Your task to perform on an android device: Show the shopping cart on ebay. Add "asus zenbook" to the cart on ebay Image 0: 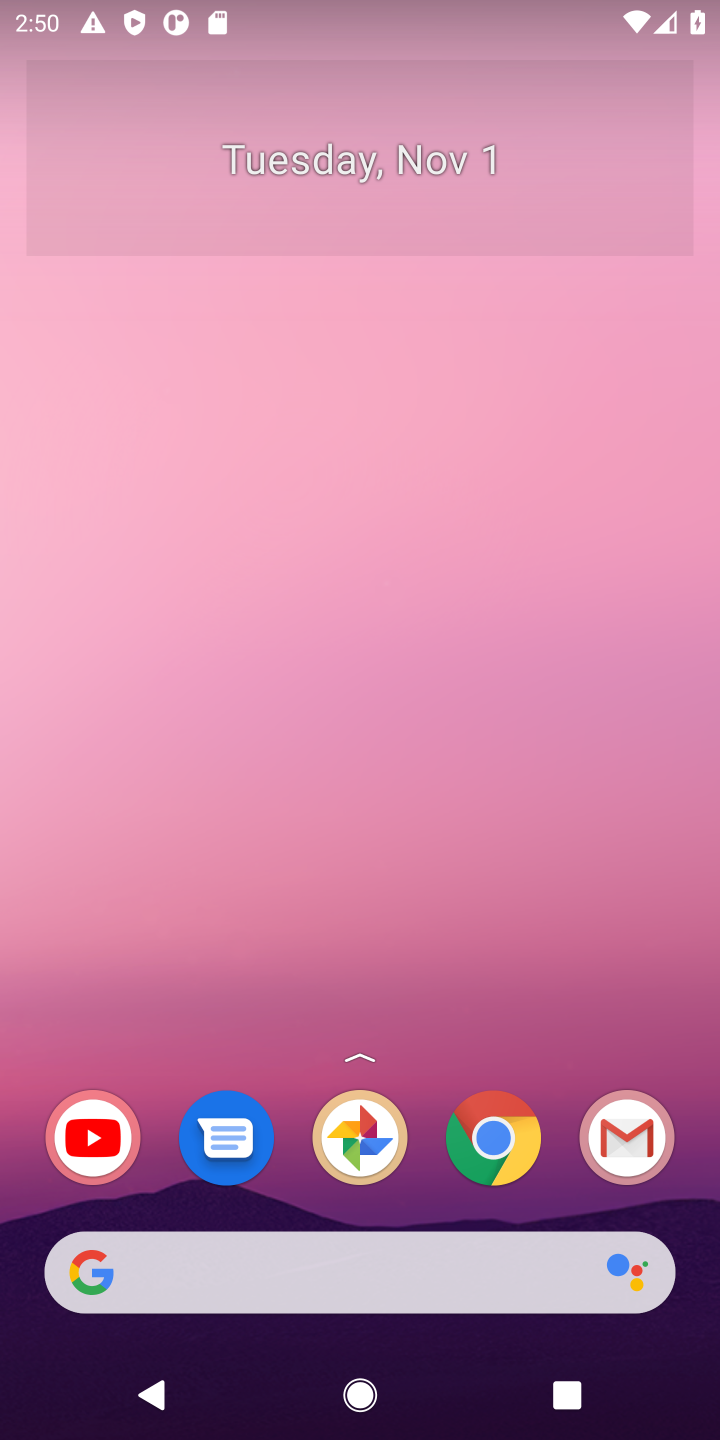
Step 0: click (483, 1145)
Your task to perform on an android device: Show the shopping cart on ebay. Add "asus zenbook" to the cart on ebay Image 1: 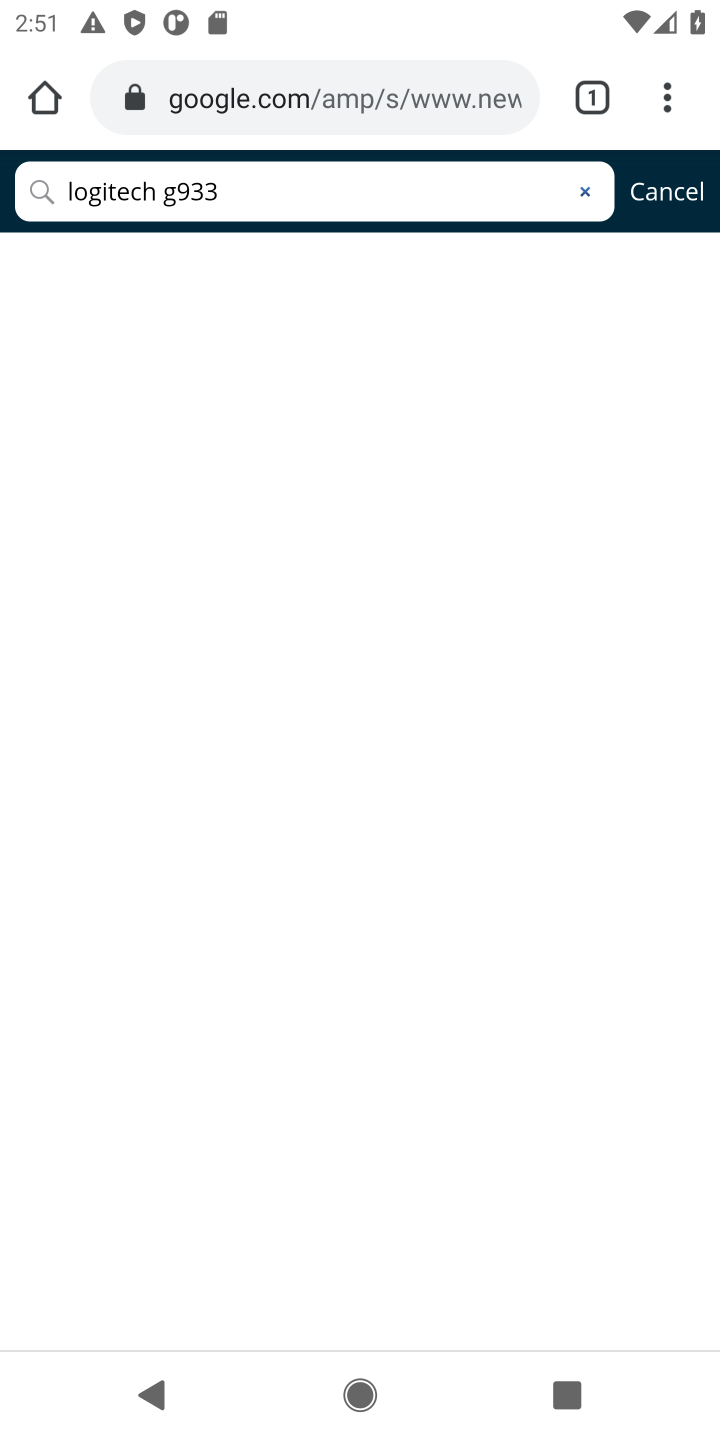
Step 1: click (264, 96)
Your task to perform on an android device: Show the shopping cart on ebay. Add "asus zenbook" to the cart on ebay Image 2: 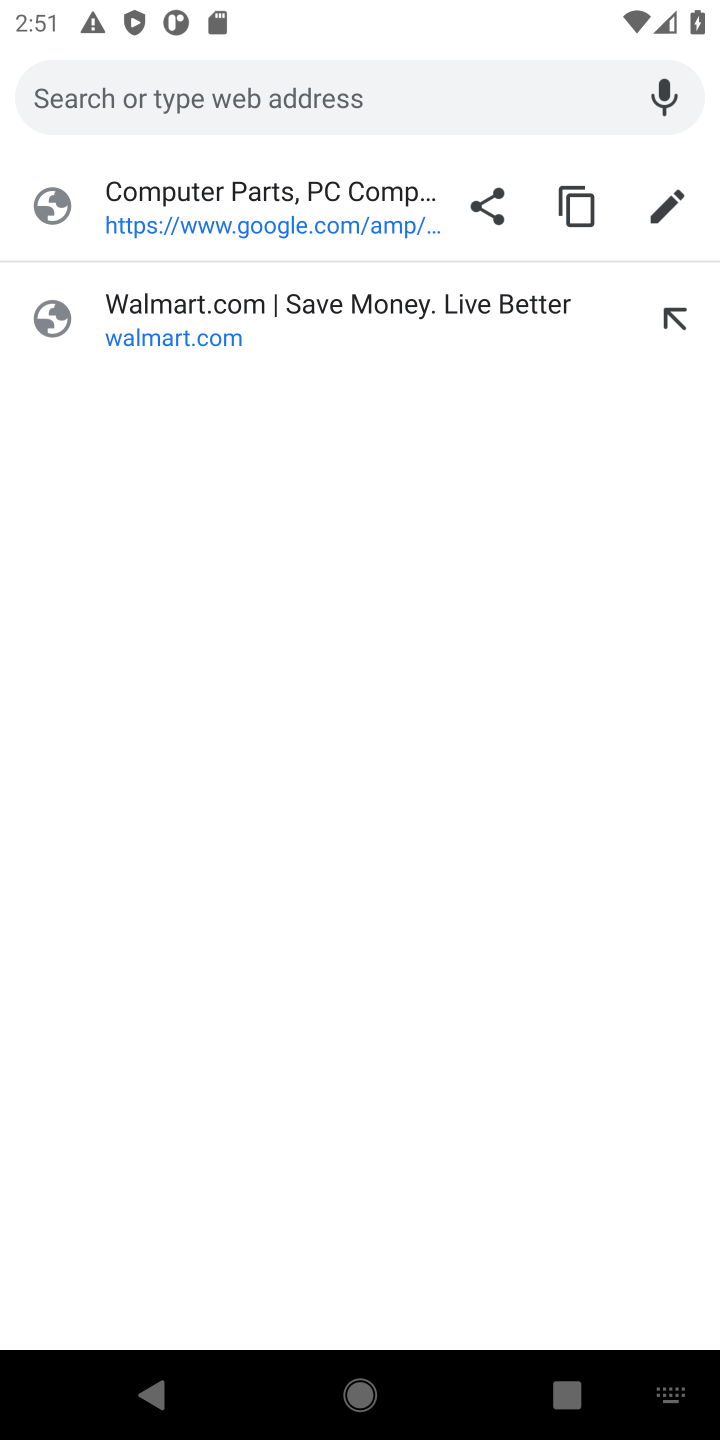
Step 2: type "ebay"
Your task to perform on an android device: Show the shopping cart on ebay. Add "asus zenbook" to the cart on ebay Image 3: 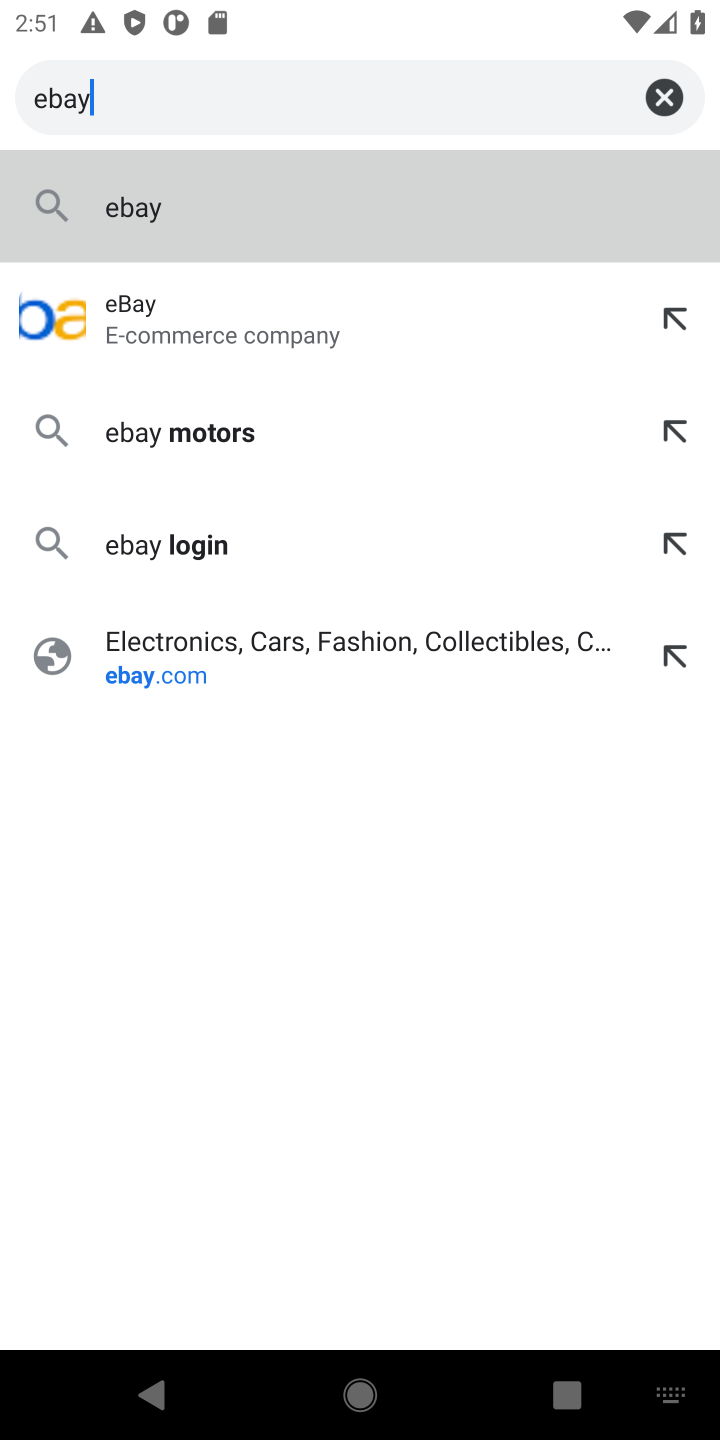
Step 3: click (215, 209)
Your task to perform on an android device: Show the shopping cart on ebay. Add "asus zenbook" to the cart on ebay Image 4: 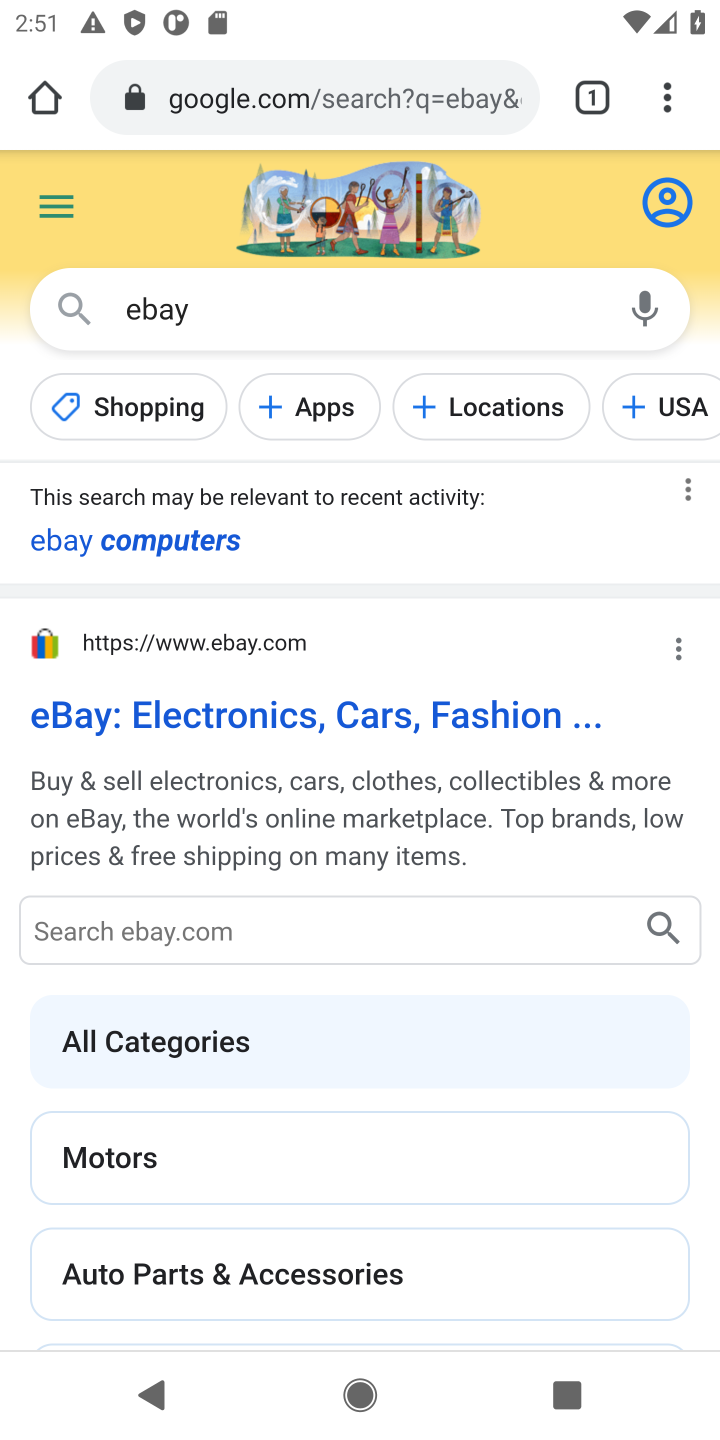
Step 4: click (126, 724)
Your task to perform on an android device: Show the shopping cart on ebay. Add "asus zenbook" to the cart on ebay Image 5: 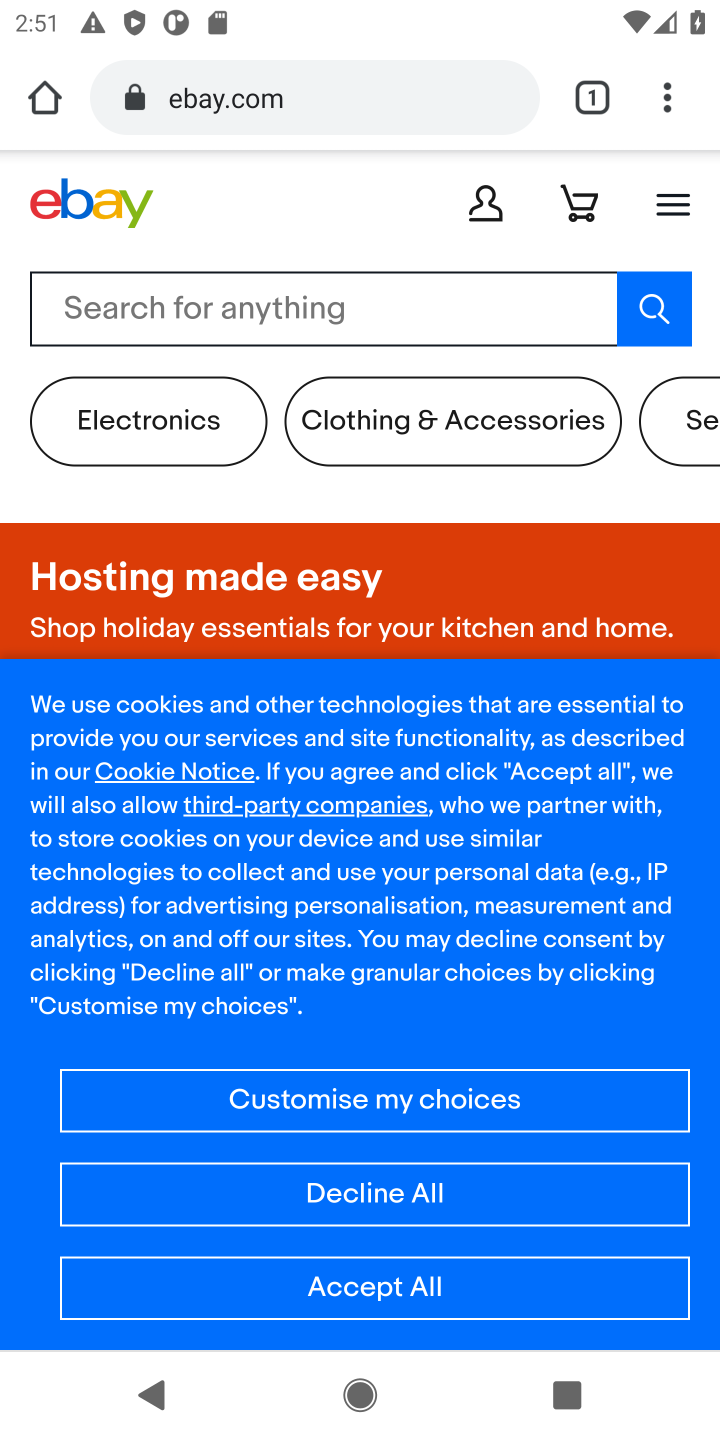
Step 5: click (122, 295)
Your task to perform on an android device: Show the shopping cart on ebay. Add "asus zenbook" to the cart on ebay Image 6: 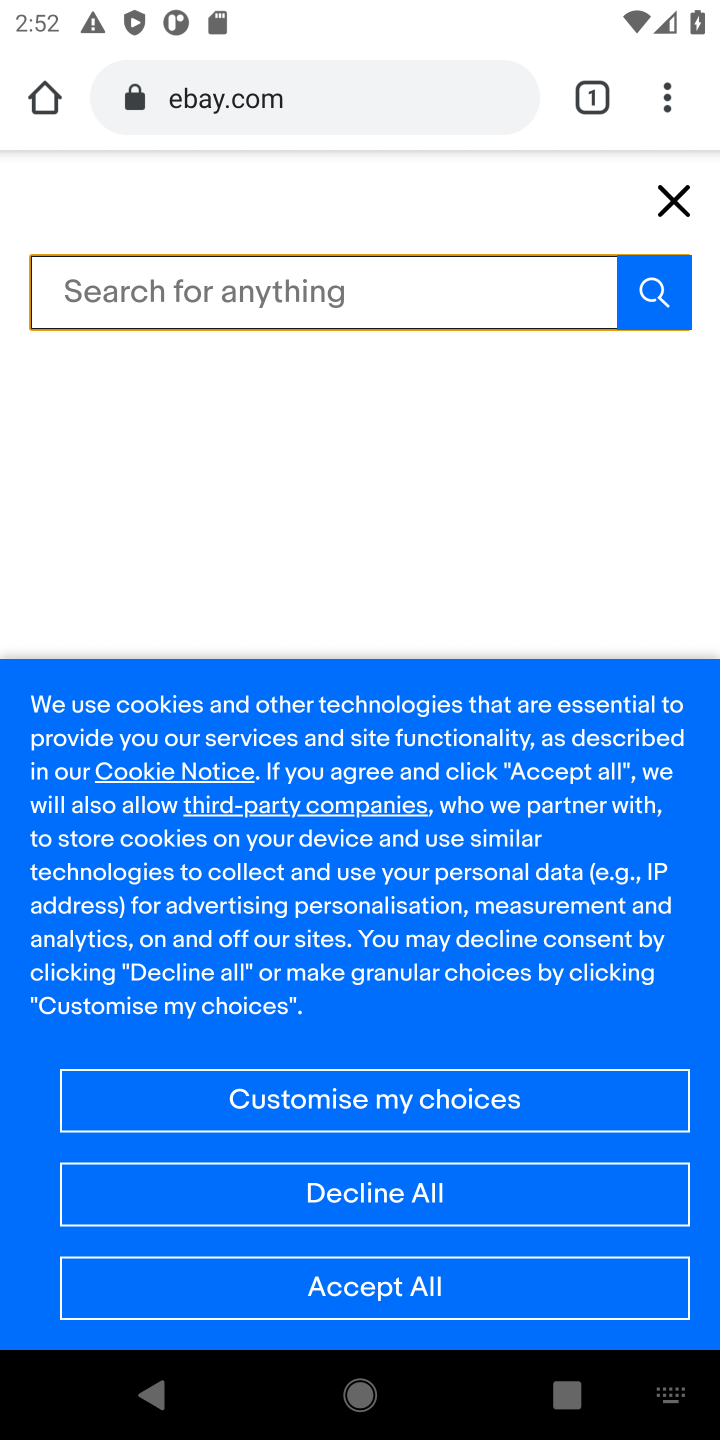
Step 6: type "asus zenbook"
Your task to perform on an android device: Show the shopping cart on ebay. Add "asus zenbook" to the cart on ebay Image 7: 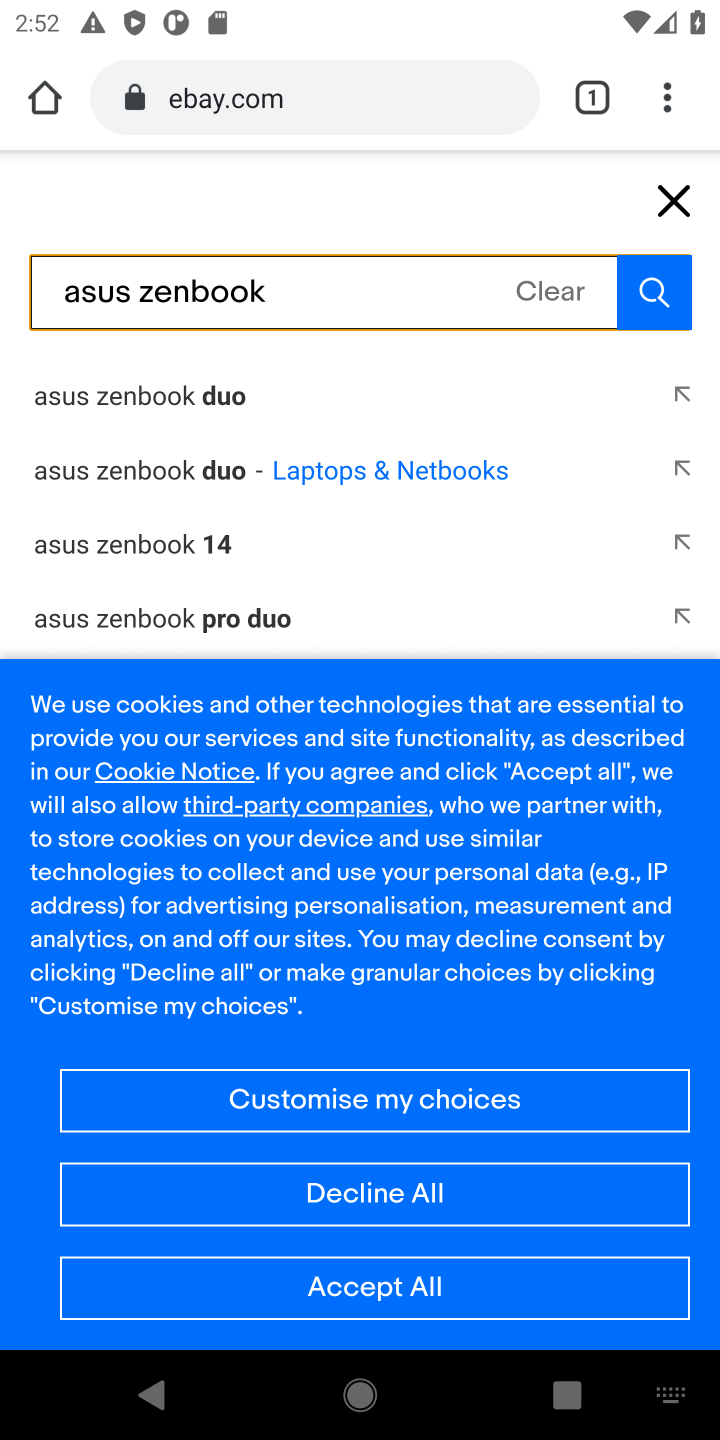
Step 7: click (645, 282)
Your task to perform on an android device: Show the shopping cart on ebay. Add "asus zenbook" to the cart on ebay Image 8: 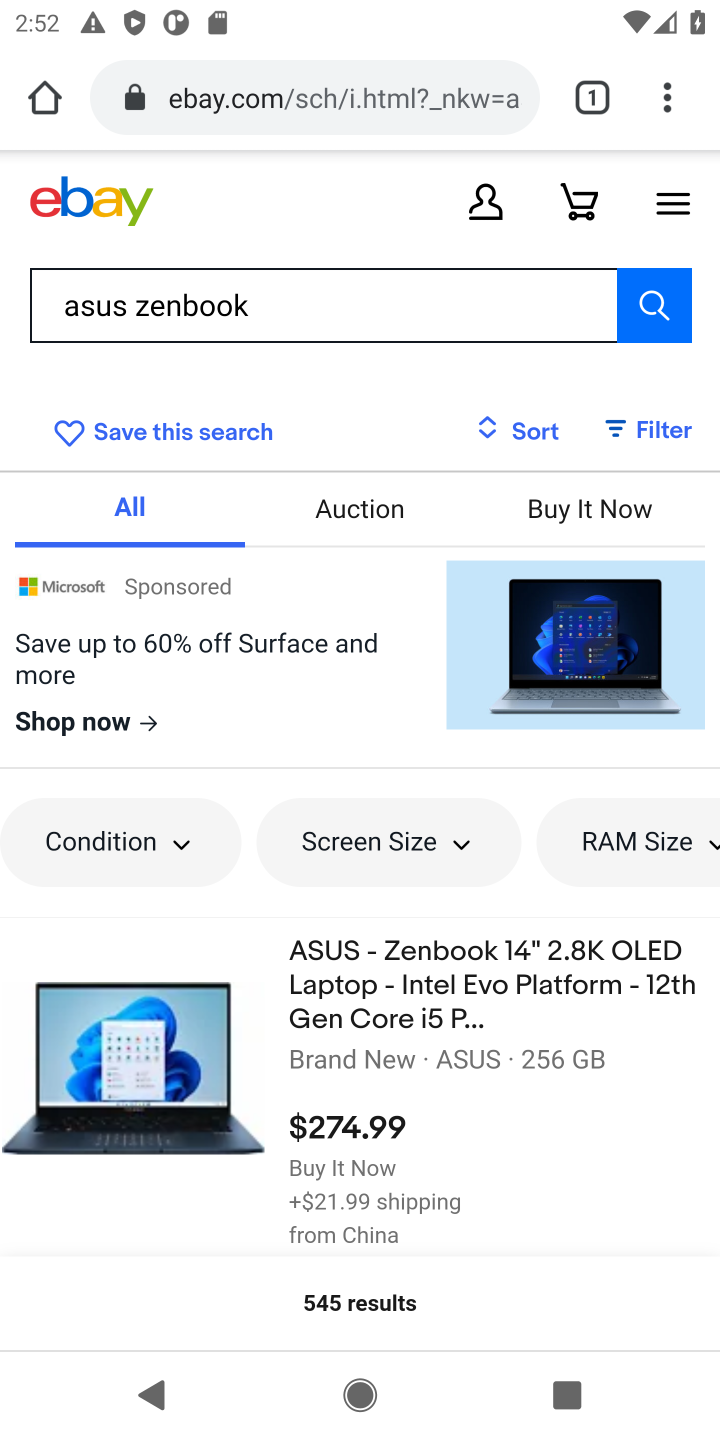
Step 8: click (454, 1045)
Your task to perform on an android device: Show the shopping cart on ebay. Add "asus zenbook" to the cart on ebay Image 9: 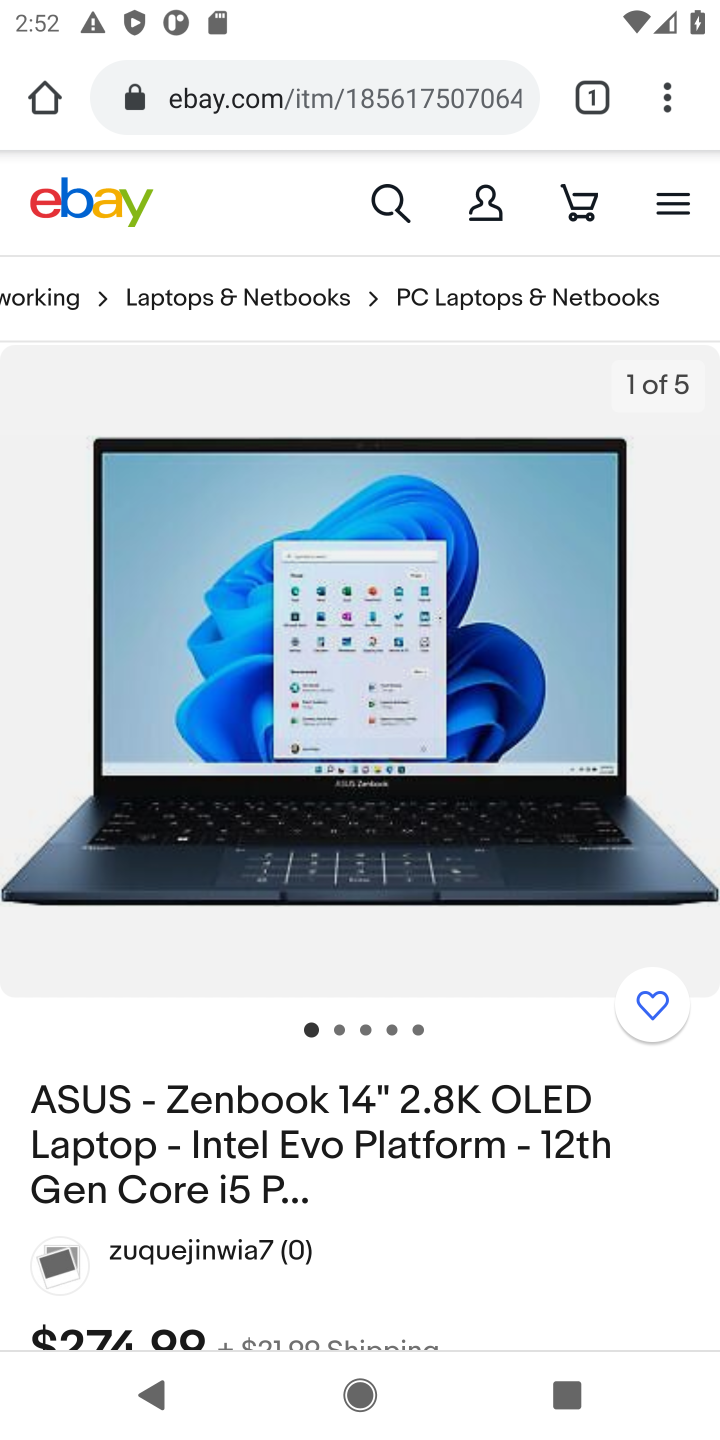
Step 9: drag from (418, 1243) to (395, 769)
Your task to perform on an android device: Show the shopping cart on ebay. Add "asus zenbook" to the cart on ebay Image 10: 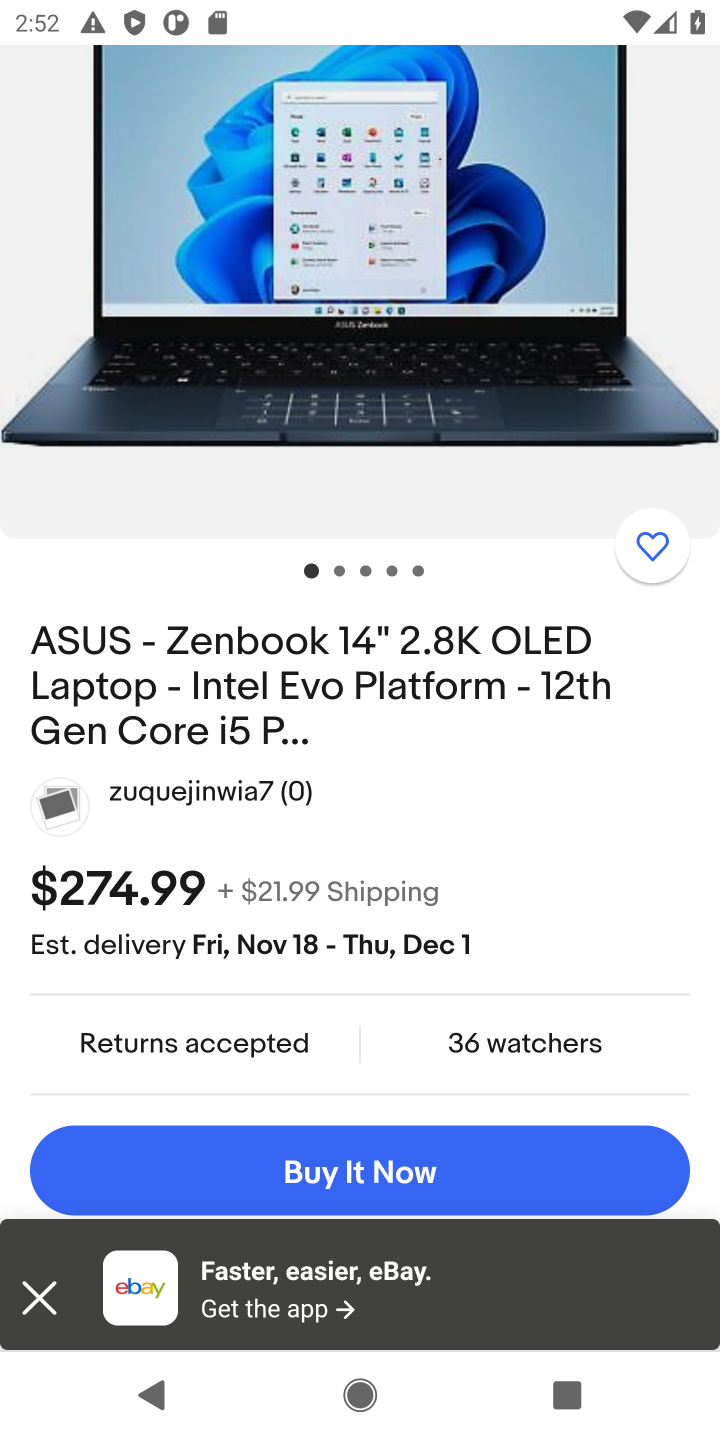
Step 10: drag from (393, 1060) to (353, 562)
Your task to perform on an android device: Show the shopping cart on ebay. Add "asus zenbook" to the cart on ebay Image 11: 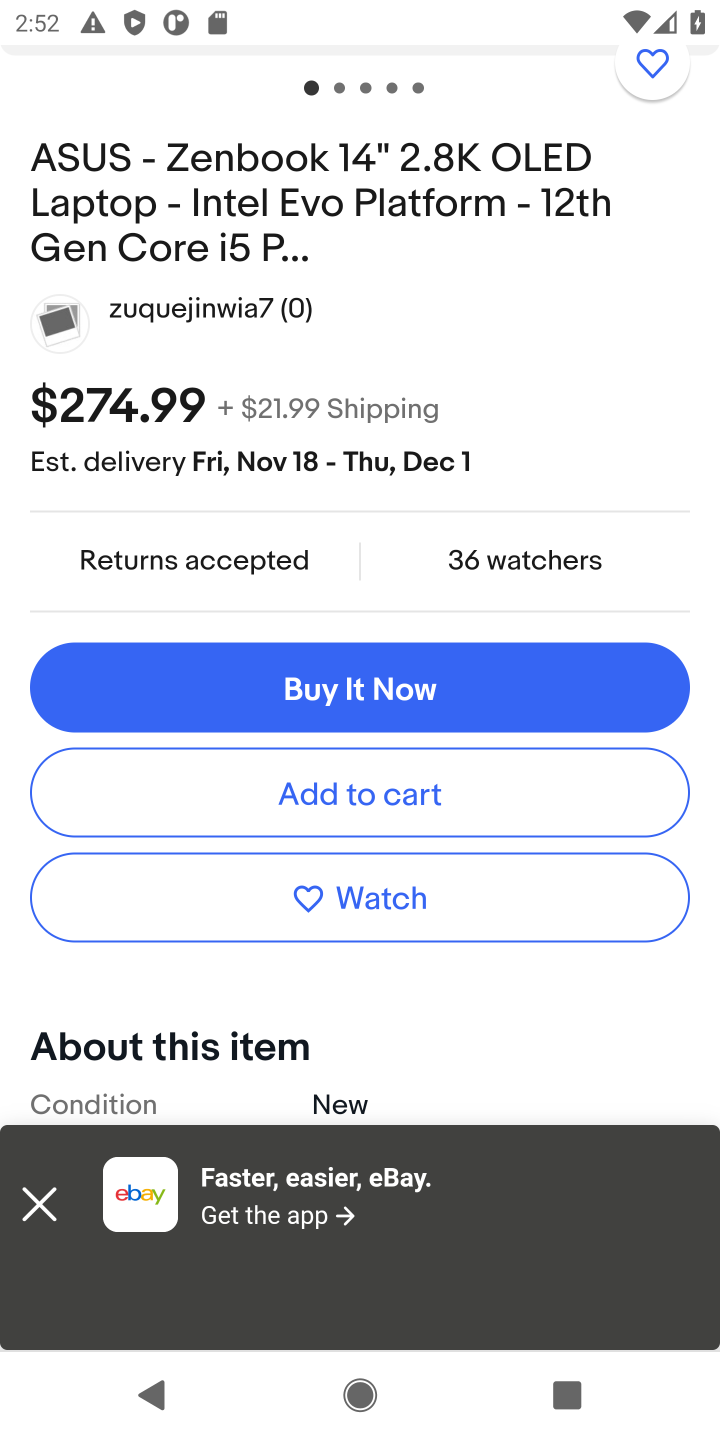
Step 11: click (443, 792)
Your task to perform on an android device: Show the shopping cart on ebay. Add "asus zenbook" to the cart on ebay Image 12: 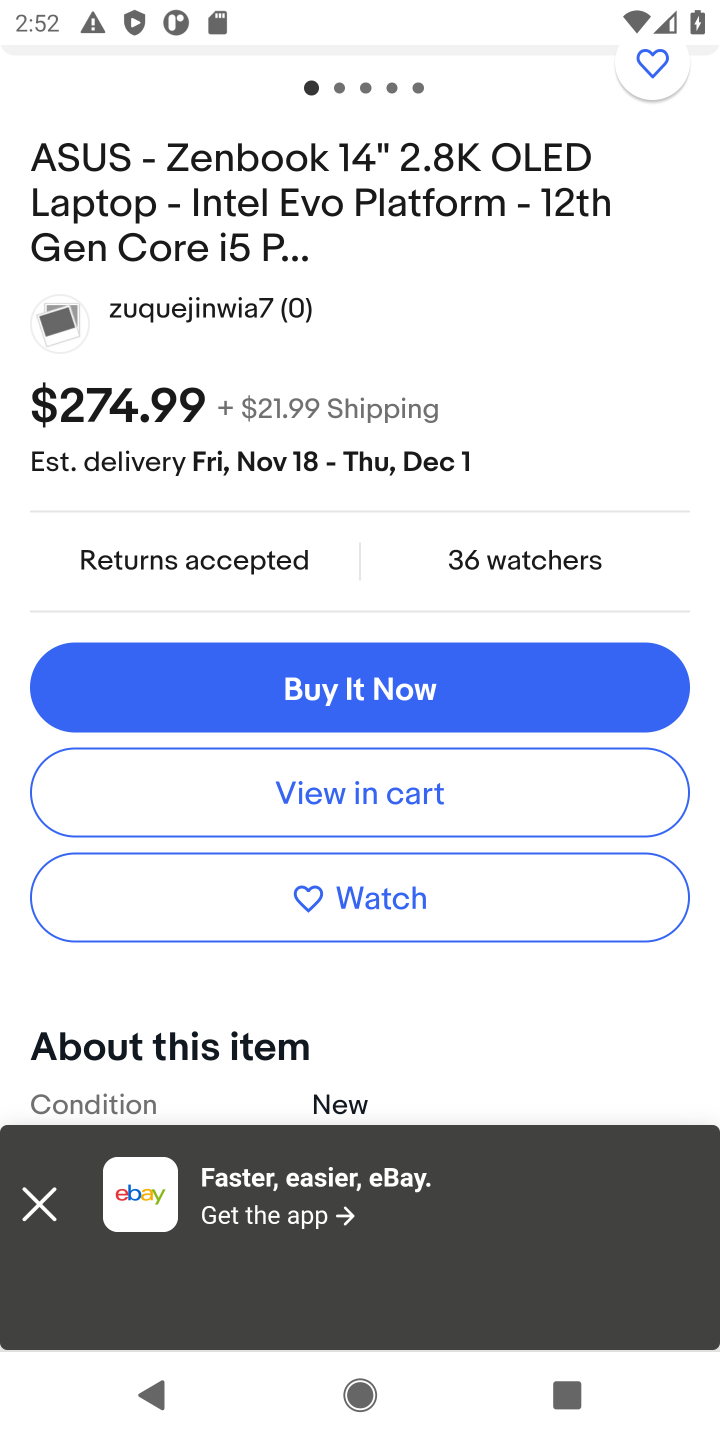
Step 12: task complete